Your task to perform on an android device: Go to privacy settings Image 0: 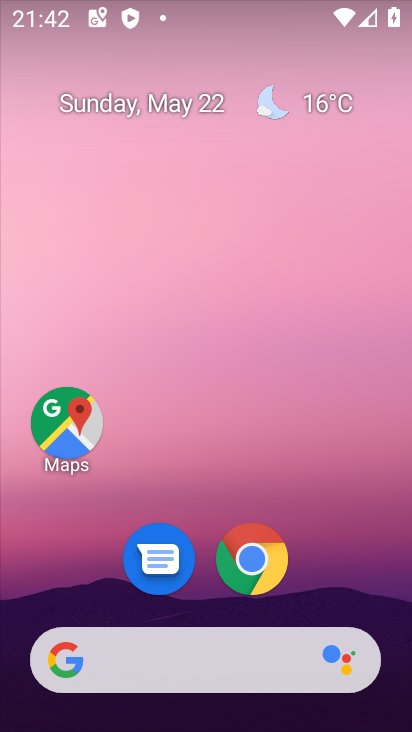
Step 0: drag from (234, 643) to (176, 230)
Your task to perform on an android device: Go to privacy settings Image 1: 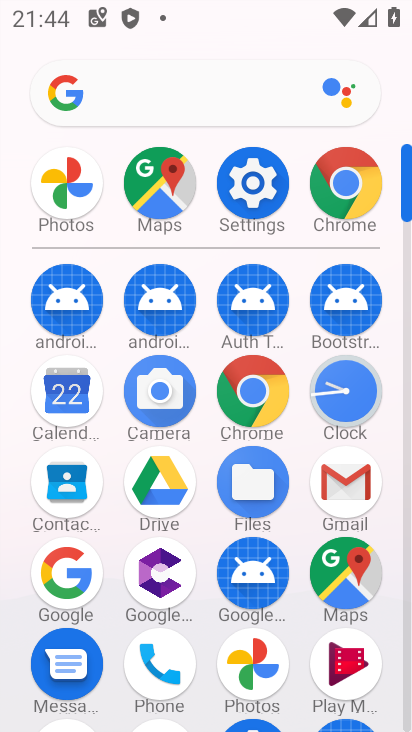
Step 1: click (249, 197)
Your task to perform on an android device: Go to privacy settings Image 2: 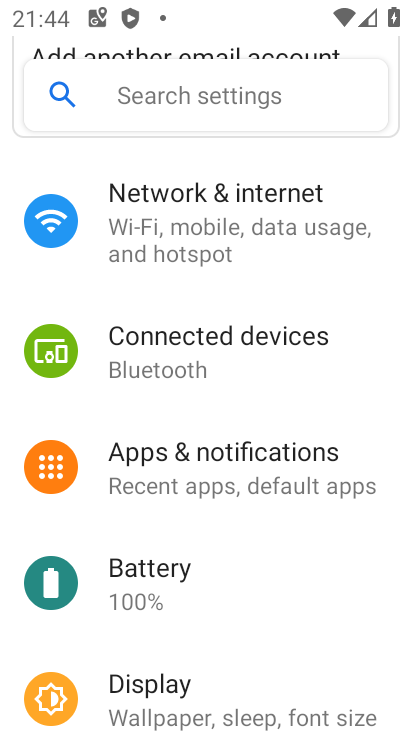
Step 2: drag from (215, 628) to (232, 295)
Your task to perform on an android device: Go to privacy settings Image 3: 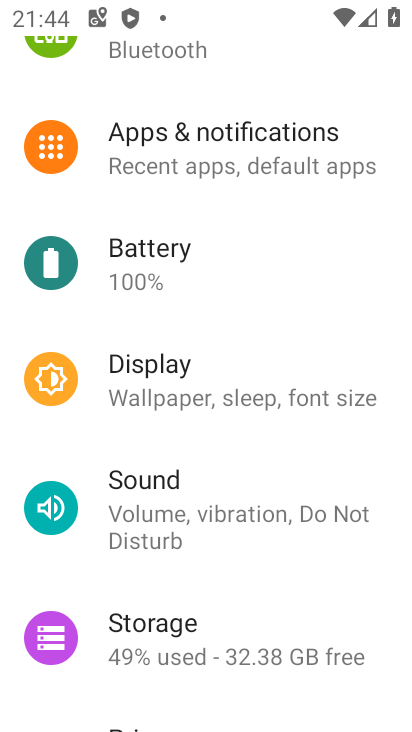
Step 3: drag from (233, 653) to (231, 290)
Your task to perform on an android device: Go to privacy settings Image 4: 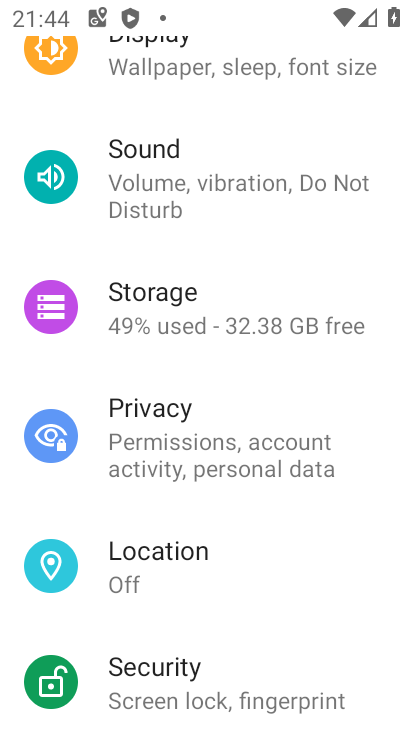
Step 4: click (184, 441)
Your task to perform on an android device: Go to privacy settings Image 5: 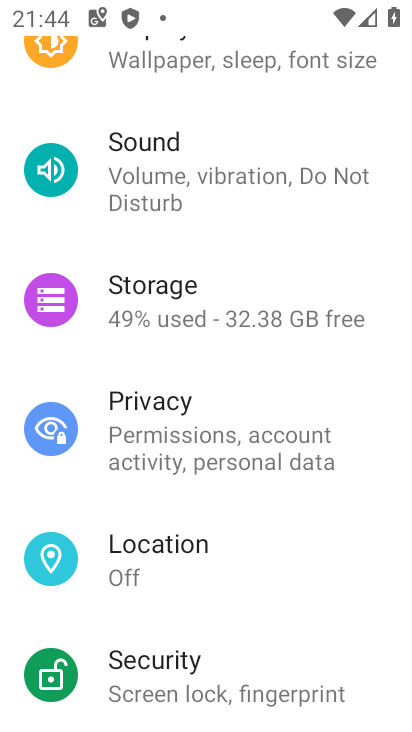
Step 5: click (181, 394)
Your task to perform on an android device: Go to privacy settings Image 6: 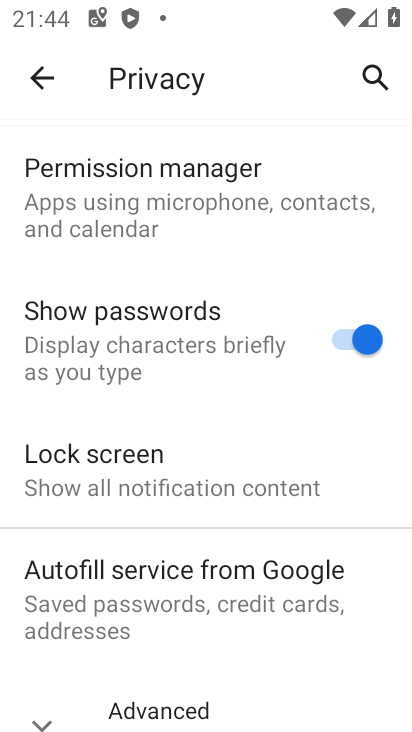
Step 6: task complete